Your task to perform on an android device: change the clock style Image 0: 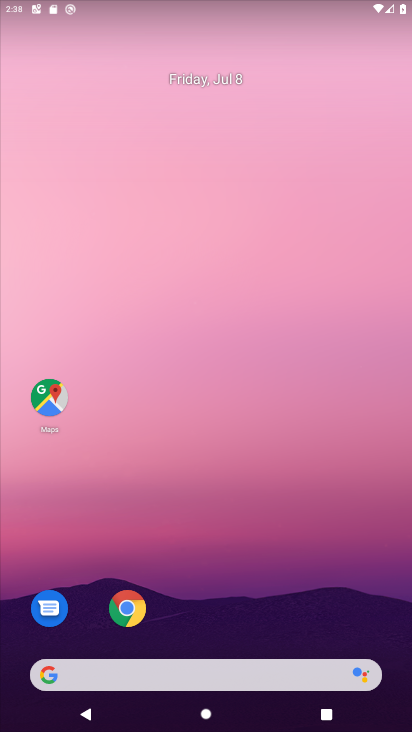
Step 0: drag from (203, 687) to (201, 448)
Your task to perform on an android device: change the clock style Image 1: 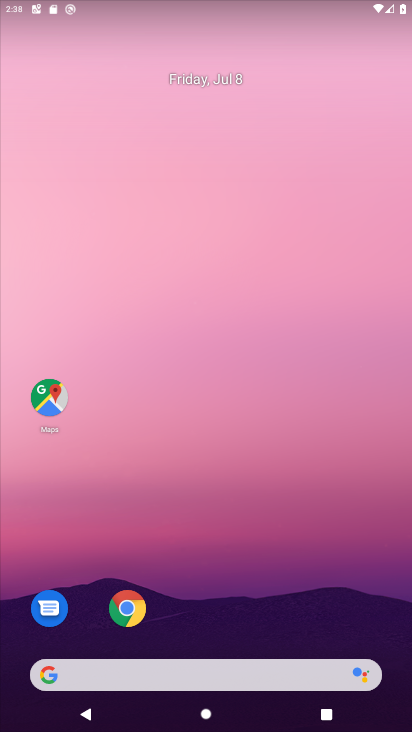
Step 1: drag from (305, 615) to (286, 420)
Your task to perform on an android device: change the clock style Image 2: 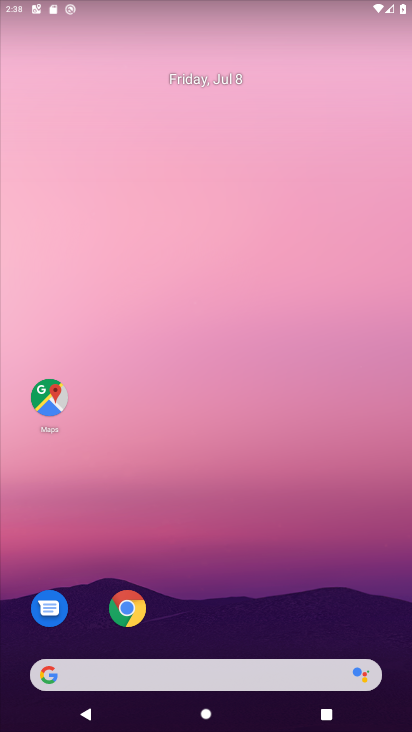
Step 2: drag from (249, 638) to (254, 318)
Your task to perform on an android device: change the clock style Image 3: 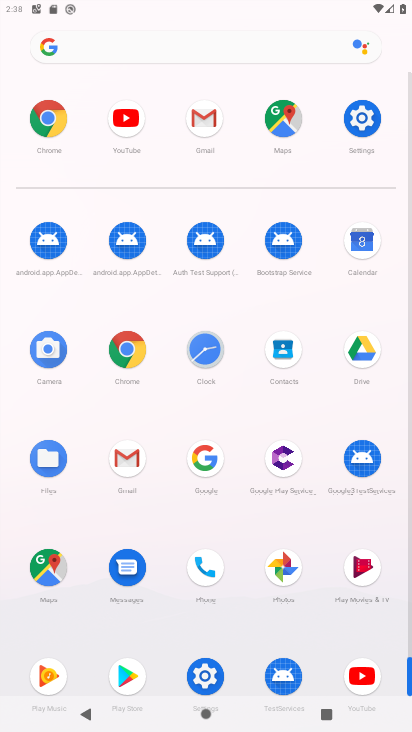
Step 3: click (196, 359)
Your task to perform on an android device: change the clock style Image 4: 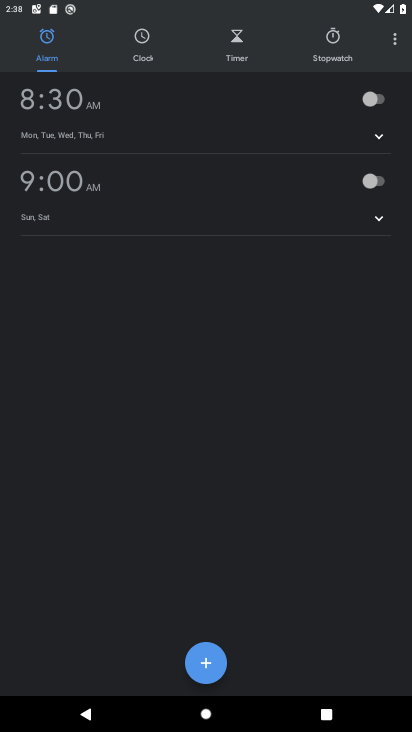
Step 4: click (398, 43)
Your task to perform on an android device: change the clock style Image 5: 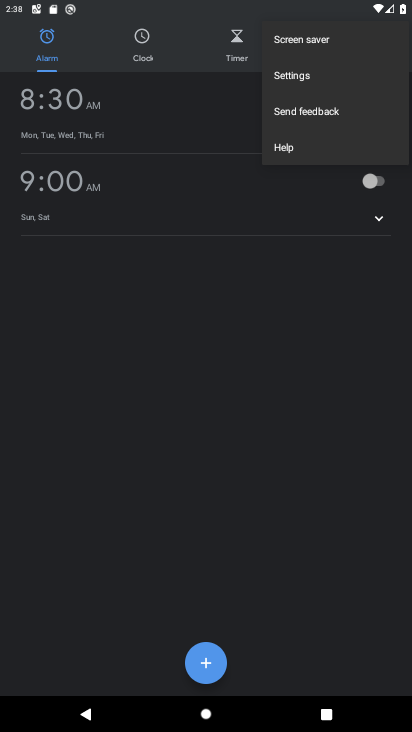
Step 5: click (311, 76)
Your task to perform on an android device: change the clock style Image 6: 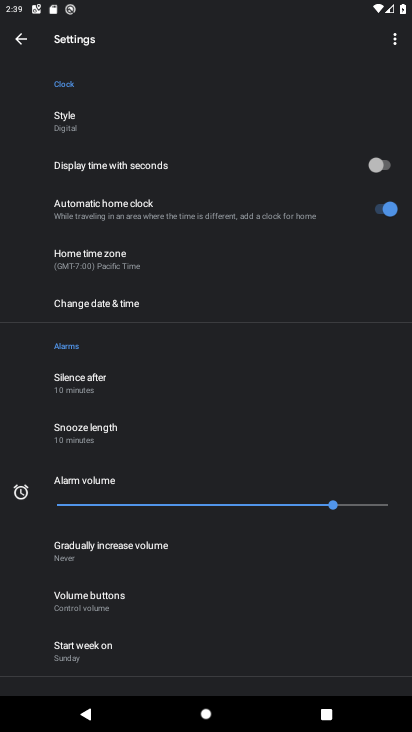
Step 6: click (78, 117)
Your task to perform on an android device: change the clock style Image 7: 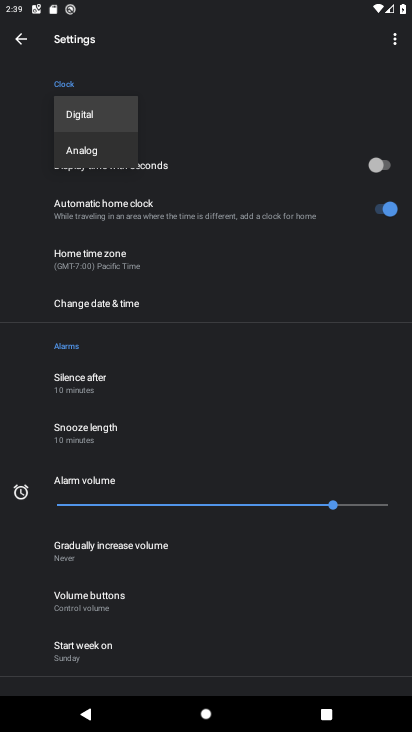
Step 7: click (88, 147)
Your task to perform on an android device: change the clock style Image 8: 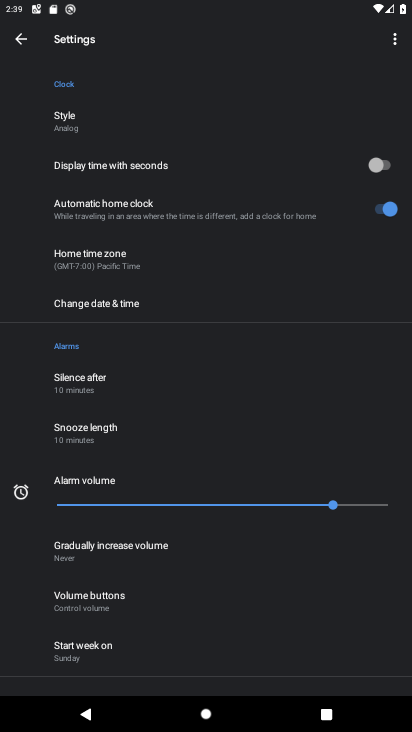
Step 8: task complete